Your task to perform on an android device: make emails show in primary in the gmail app Image 0: 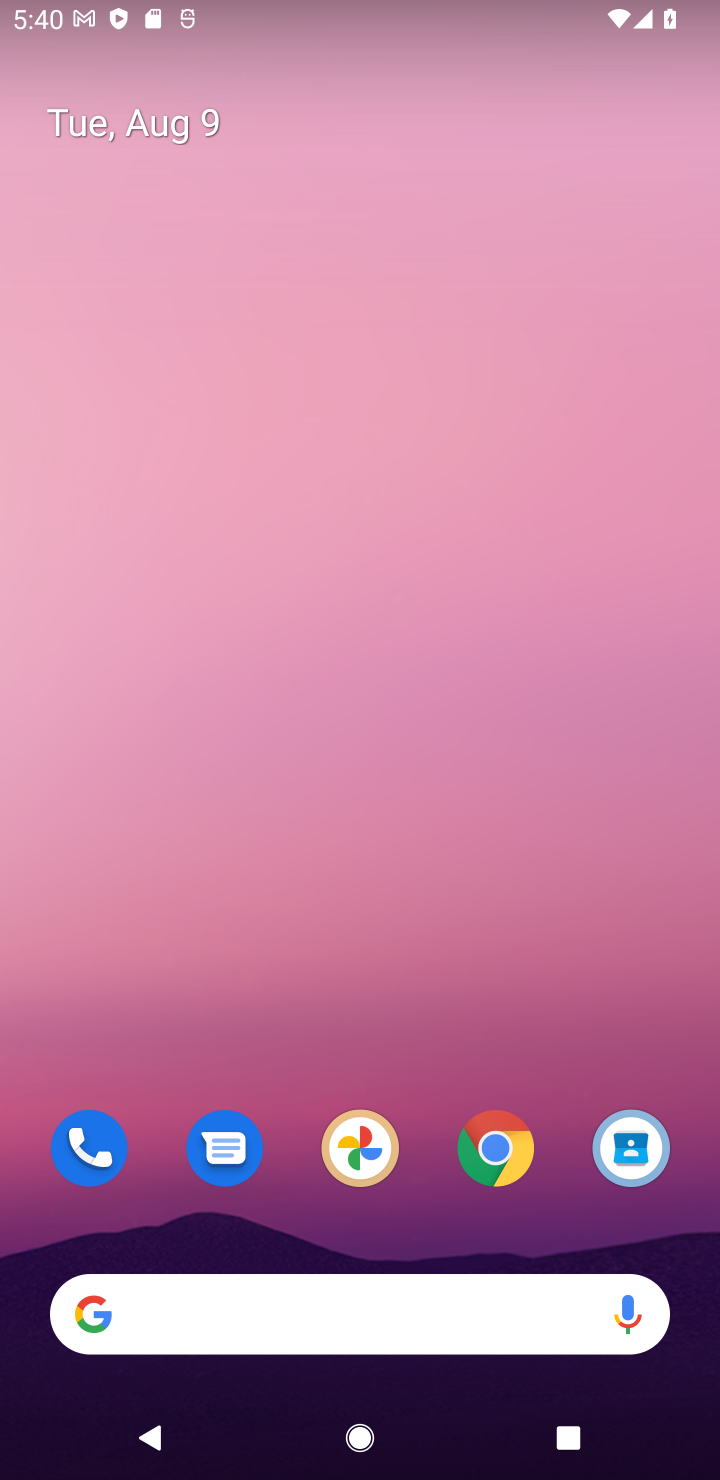
Step 0: drag from (354, 804) to (350, 78)
Your task to perform on an android device: make emails show in primary in the gmail app Image 1: 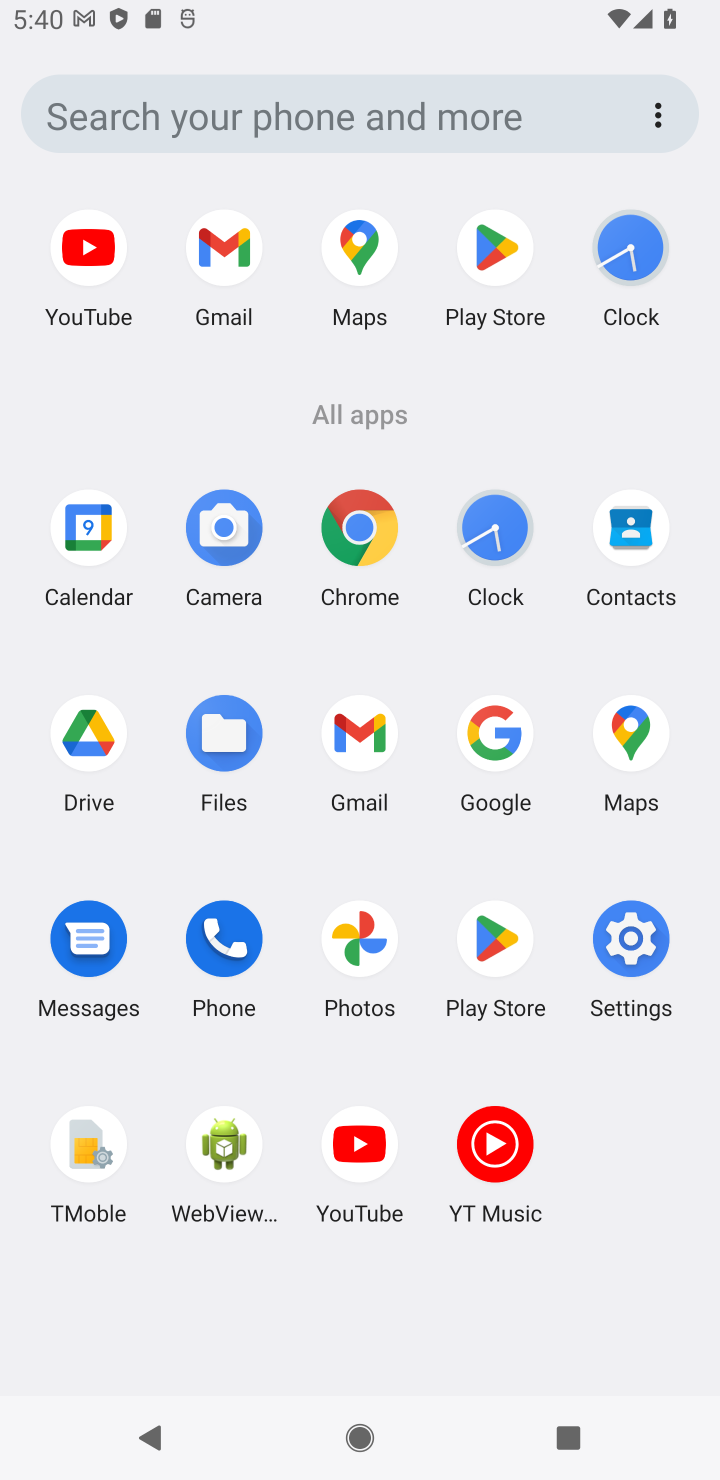
Step 1: click (360, 746)
Your task to perform on an android device: make emails show in primary in the gmail app Image 2: 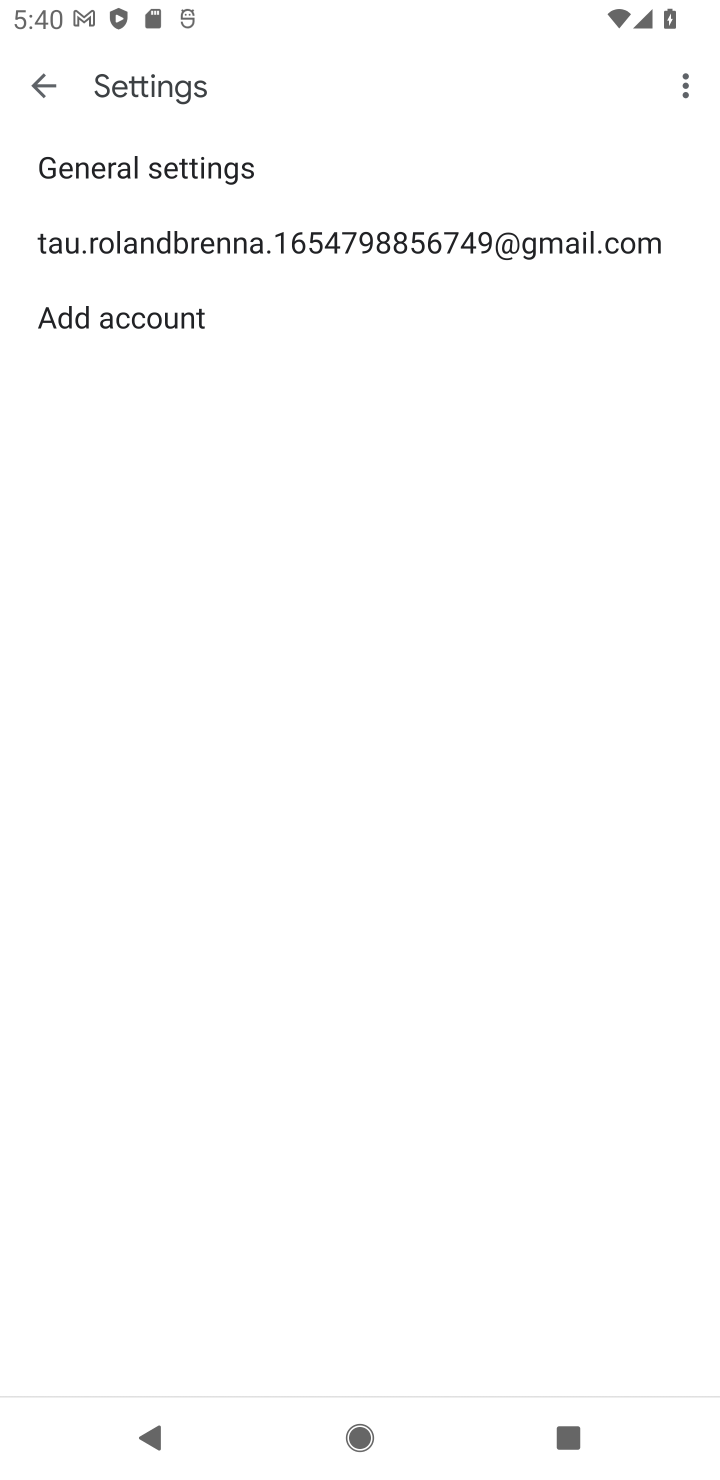
Step 2: click (204, 246)
Your task to perform on an android device: make emails show in primary in the gmail app Image 3: 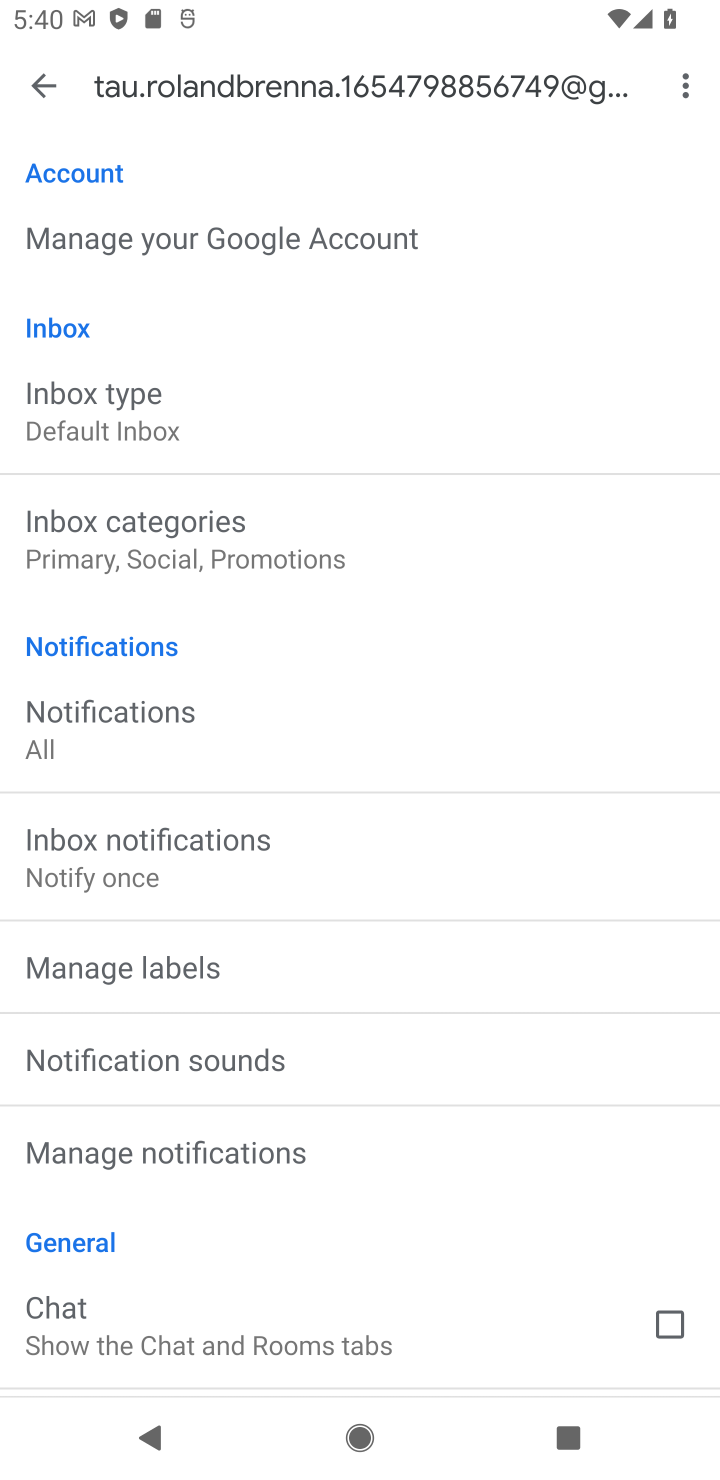
Step 3: click (254, 557)
Your task to perform on an android device: make emails show in primary in the gmail app Image 4: 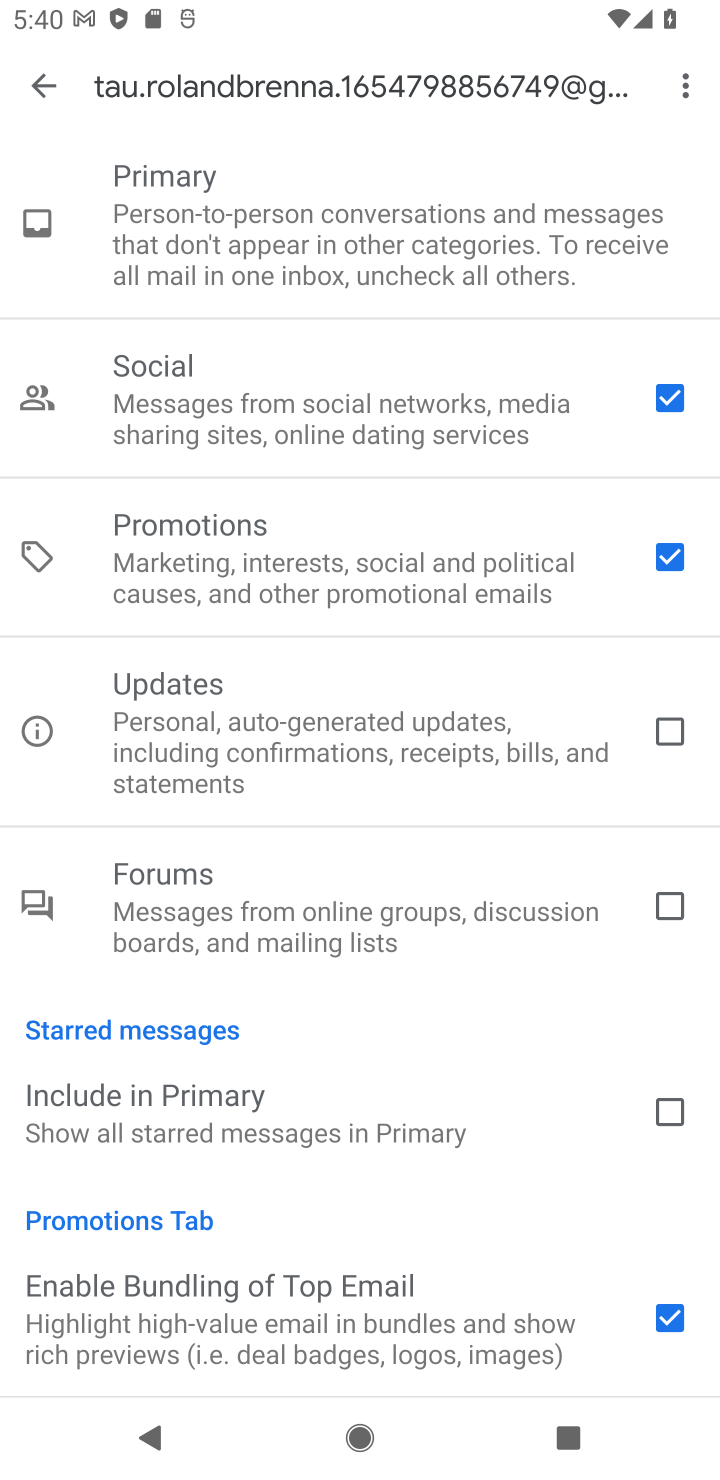
Step 4: click (690, 567)
Your task to perform on an android device: make emails show in primary in the gmail app Image 5: 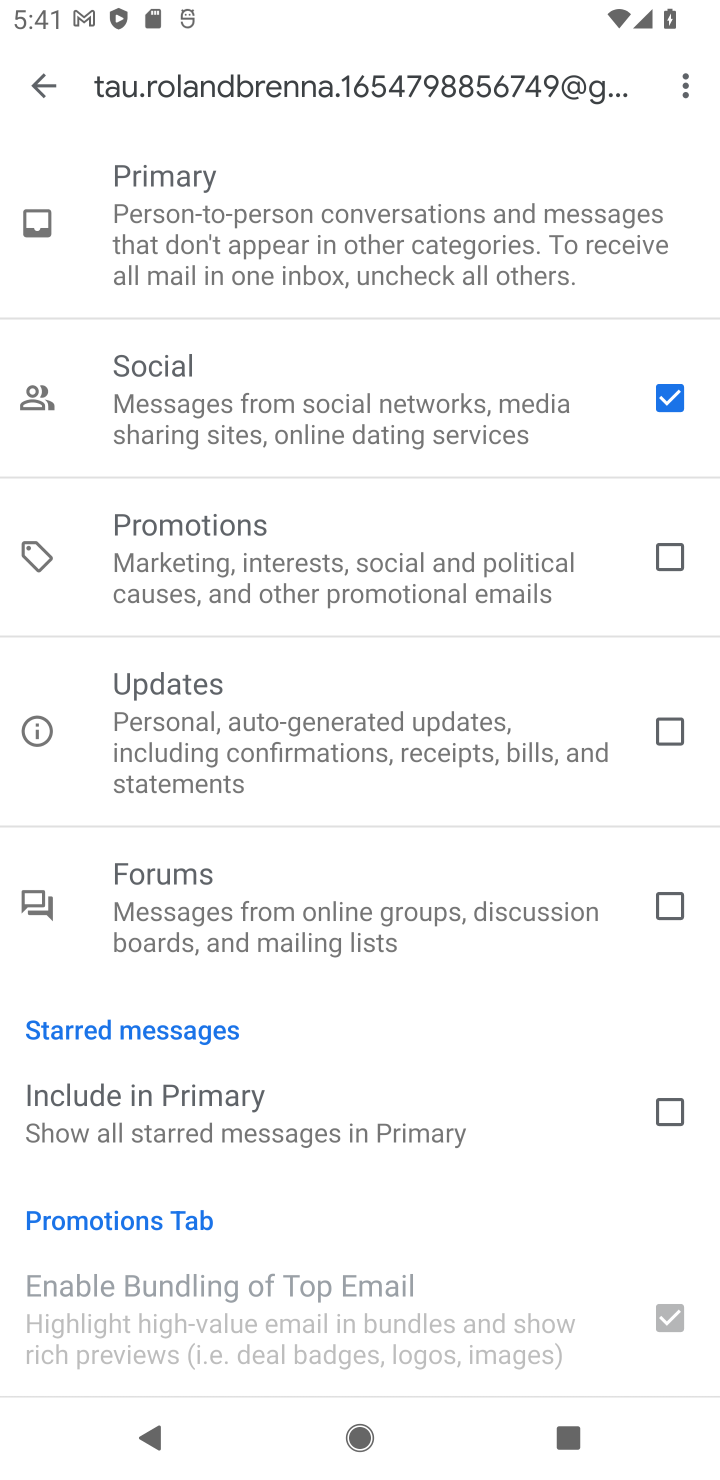
Step 5: click (656, 393)
Your task to perform on an android device: make emails show in primary in the gmail app Image 6: 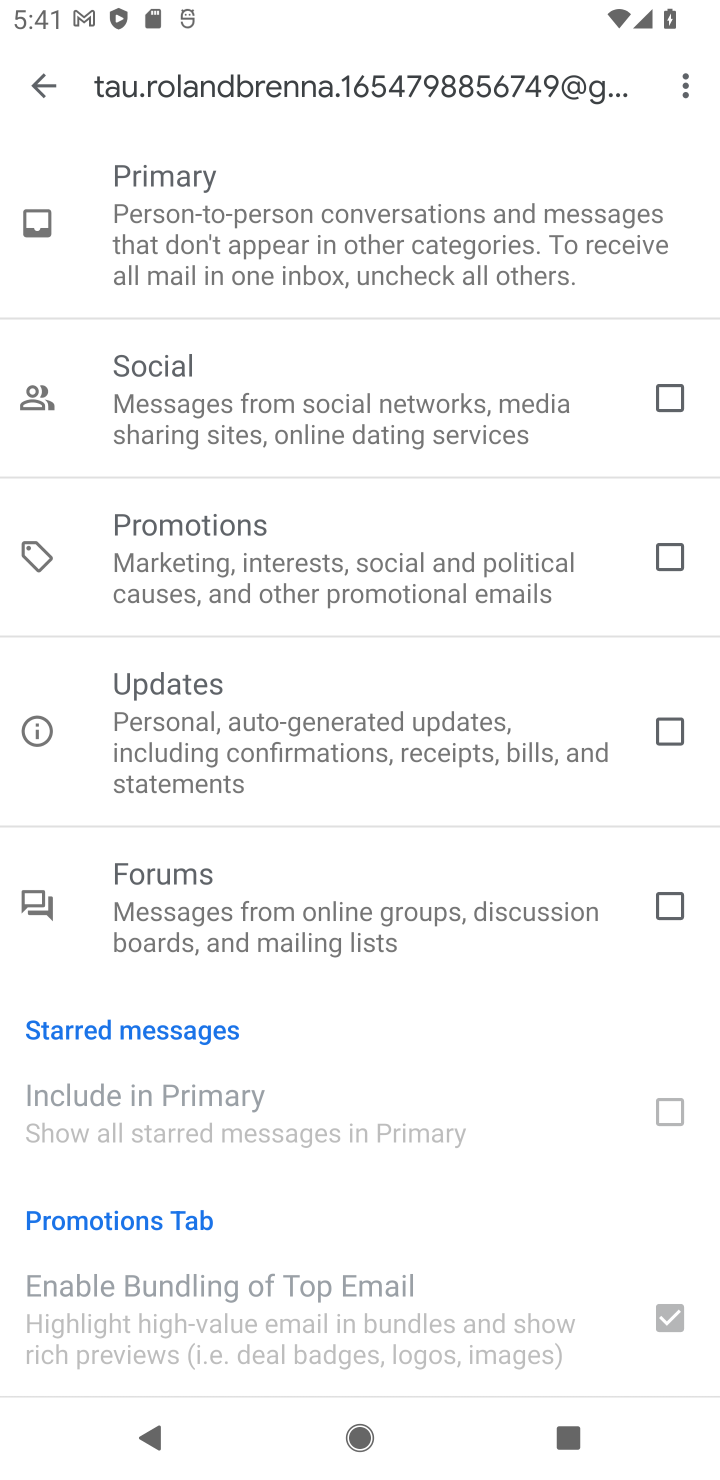
Step 6: task complete